Your task to perform on an android device: change text size in settings app Image 0: 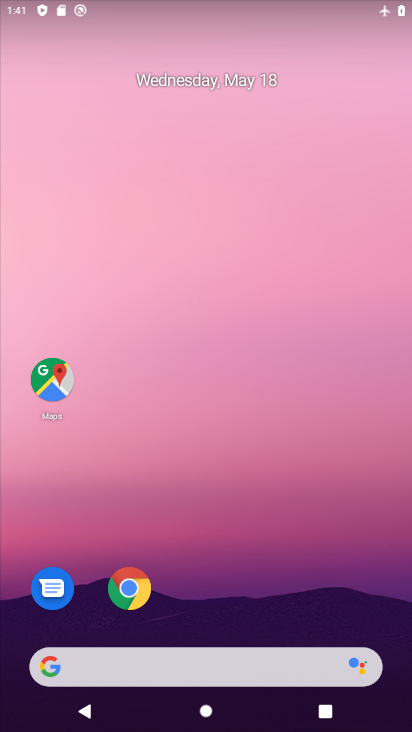
Step 0: drag from (22, 639) to (206, 203)
Your task to perform on an android device: change text size in settings app Image 1: 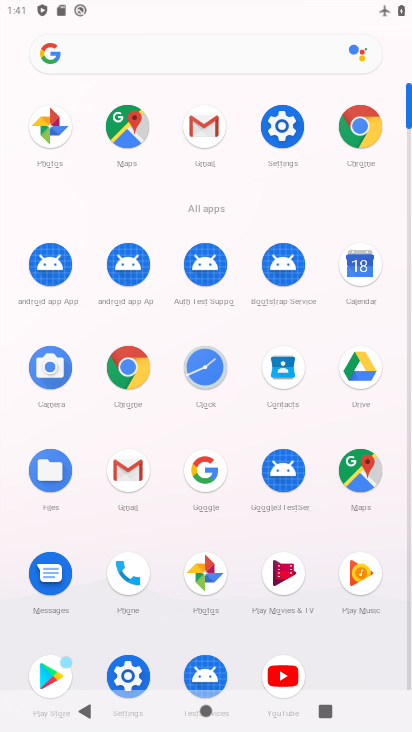
Step 1: click (125, 670)
Your task to perform on an android device: change text size in settings app Image 2: 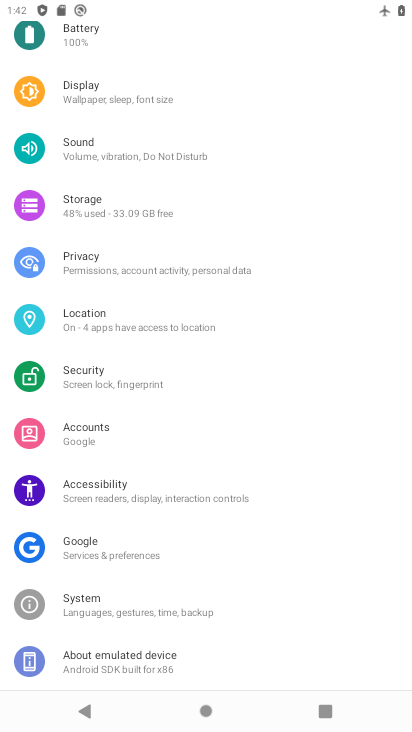
Step 2: click (91, 97)
Your task to perform on an android device: change text size in settings app Image 3: 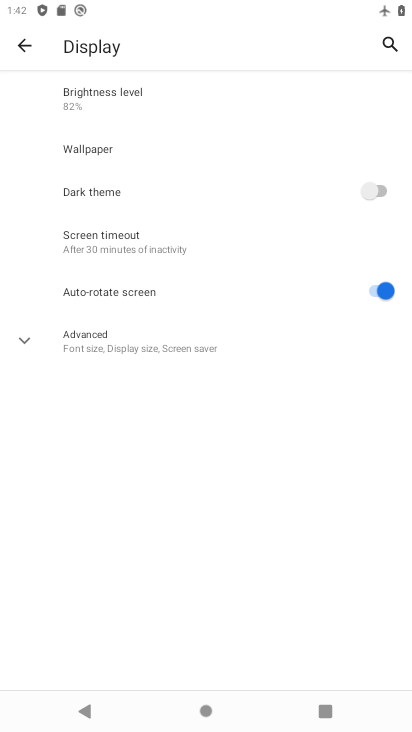
Step 3: click (111, 349)
Your task to perform on an android device: change text size in settings app Image 4: 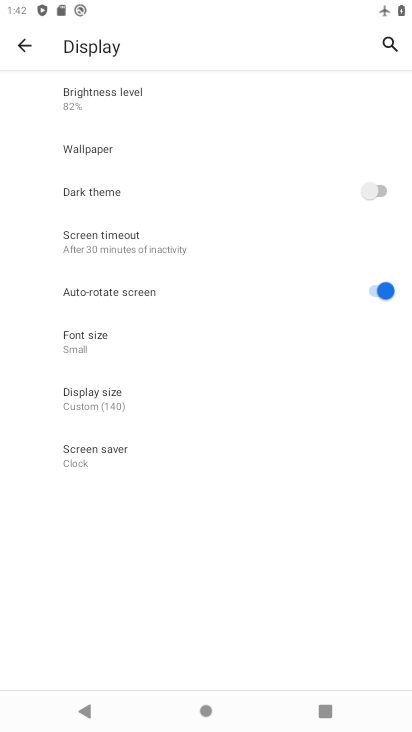
Step 4: click (98, 333)
Your task to perform on an android device: change text size in settings app Image 5: 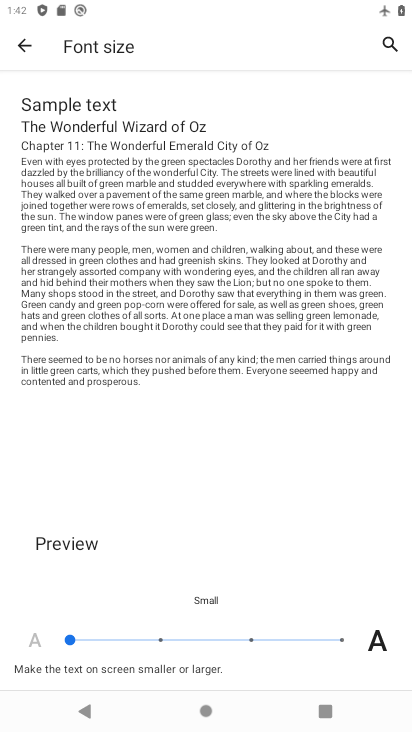
Step 5: click (158, 635)
Your task to perform on an android device: change text size in settings app Image 6: 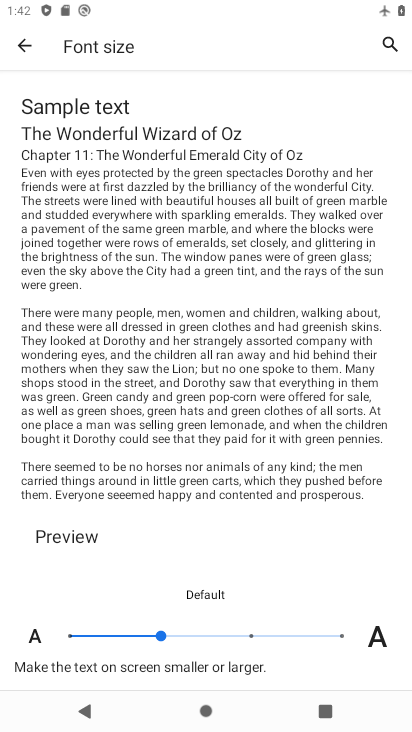
Step 6: click (251, 636)
Your task to perform on an android device: change text size in settings app Image 7: 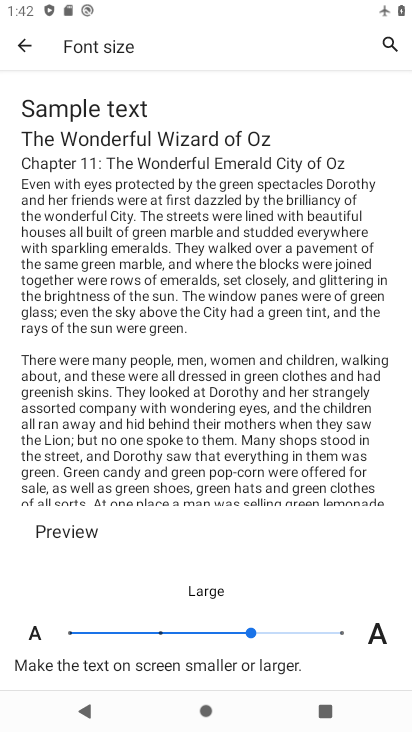
Step 7: task complete